Your task to perform on an android device: see creations saved in the google photos Image 0: 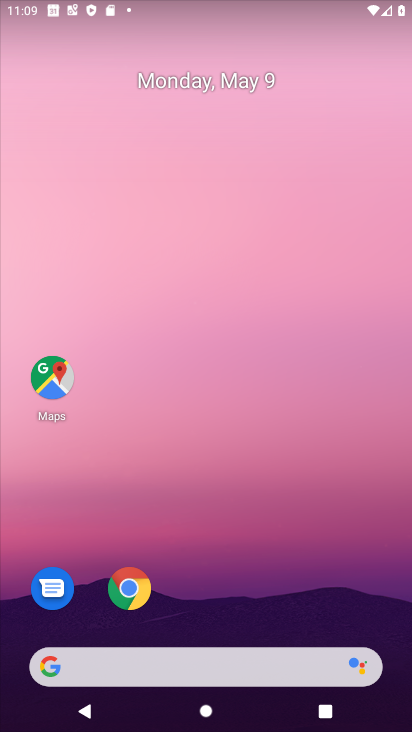
Step 0: drag from (188, 629) to (116, 16)
Your task to perform on an android device: see creations saved in the google photos Image 1: 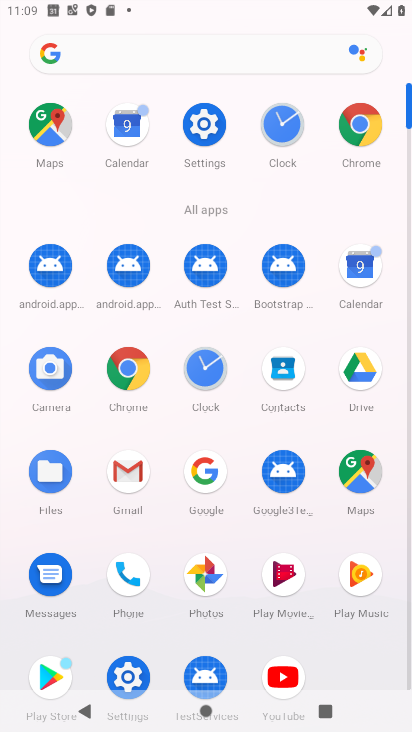
Step 1: click (187, 572)
Your task to perform on an android device: see creations saved in the google photos Image 2: 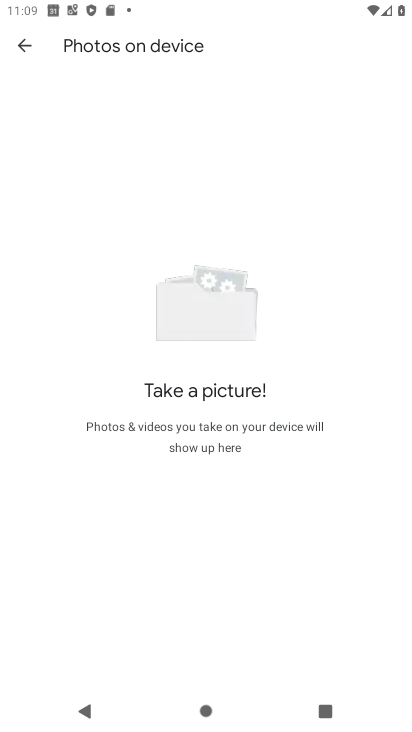
Step 2: click (27, 41)
Your task to perform on an android device: see creations saved in the google photos Image 3: 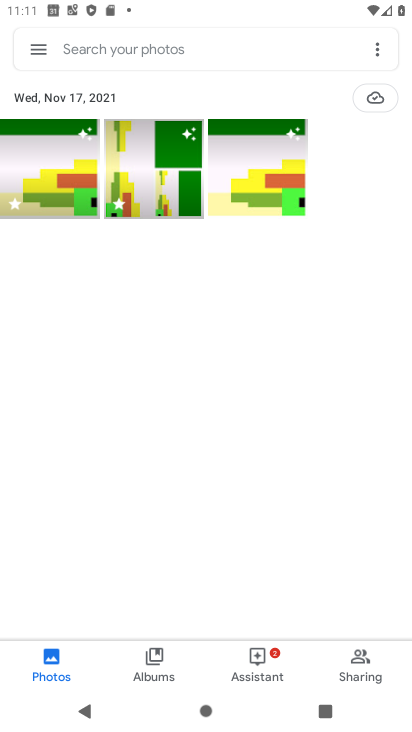
Step 3: click (143, 47)
Your task to perform on an android device: see creations saved in the google photos Image 4: 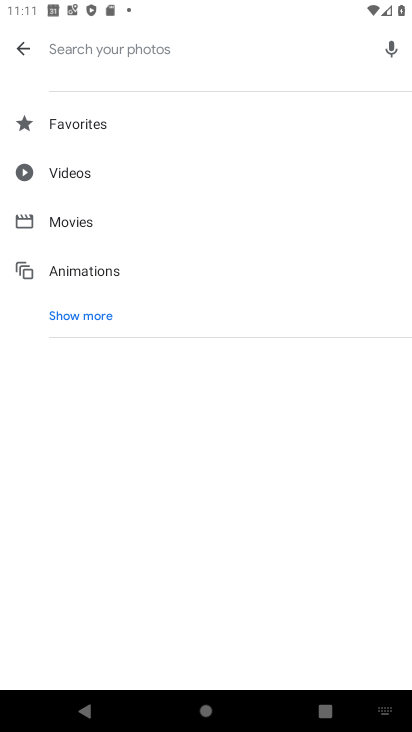
Step 4: click (82, 305)
Your task to perform on an android device: see creations saved in the google photos Image 5: 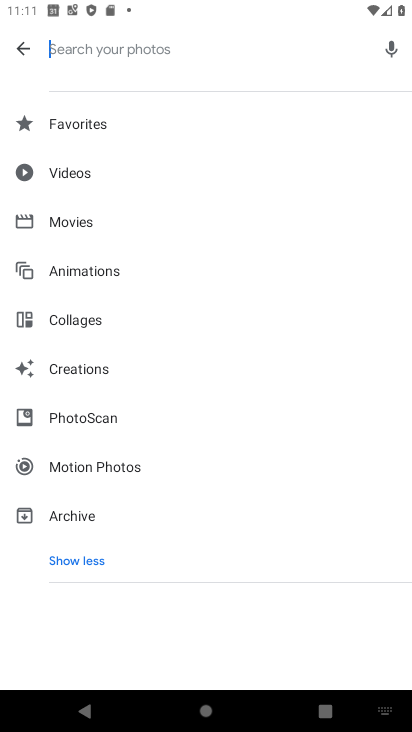
Step 5: click (76, 378)
Your task to perform on an android device: see creations saved in the google photos Image 6: 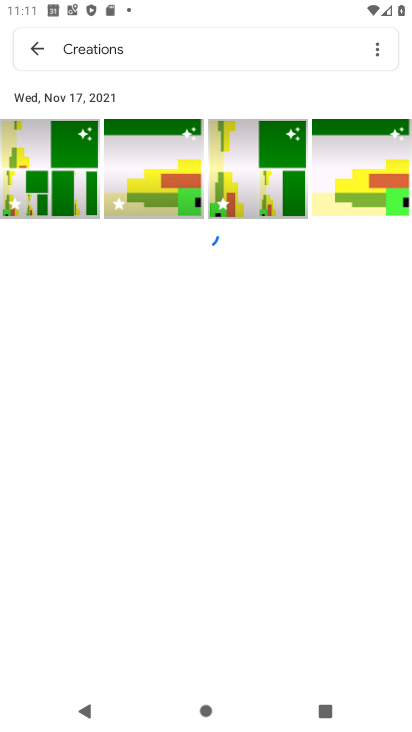
Step 6: task complete